Your task to perform on an android device: Search for sushi restaurants on Maps Image 0: 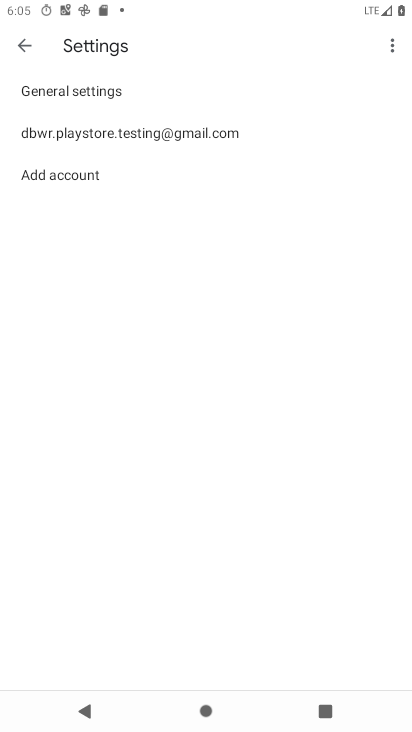
Step 0: press home button
Your task to perform on an android device: Search for sushi restaurants on Maps Image 1: 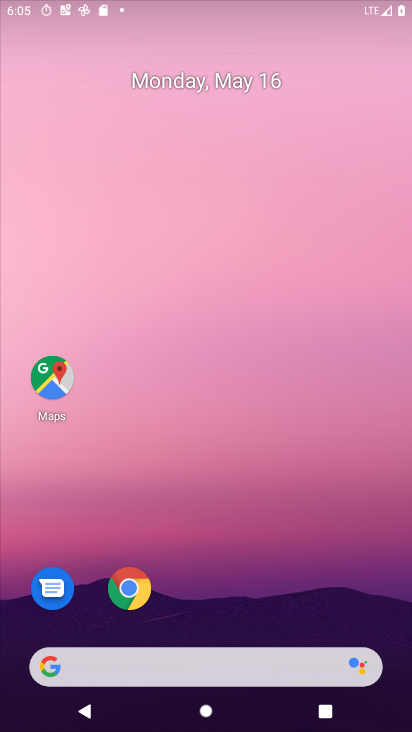
Step 1: click (58, 375)
Your task to perform on an android device: Search for sushi restaurants on Maps Image 2: 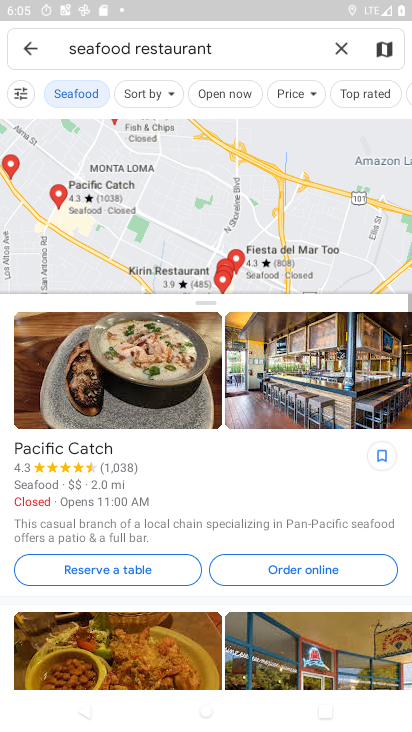
Step 2: click (335, 42)
Your task to perform on an android device: Search for sushi restaurants on Maps Image 3: 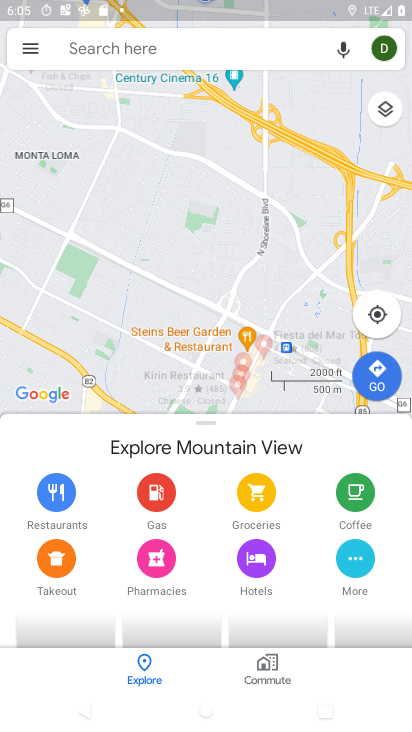
Step 3: click (199, 44)
Your task to perform on an android device: Search for sushi restaurants on Maps Image 4: 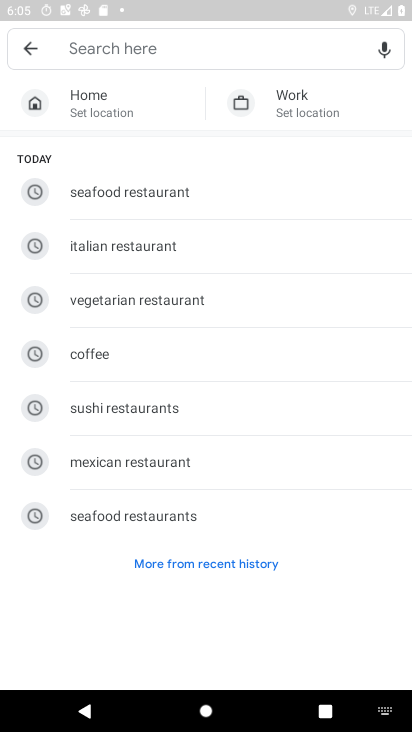
Step 4: click (148, 406)
Your task to perform on an android device: Search for sushi restaurants on Maps Image 5: 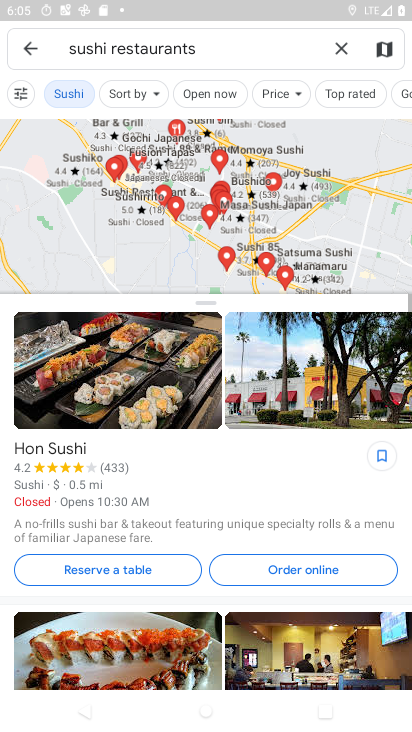
Step 5: task complete